Your task to perform on an android device: Open the web browser Image 0: 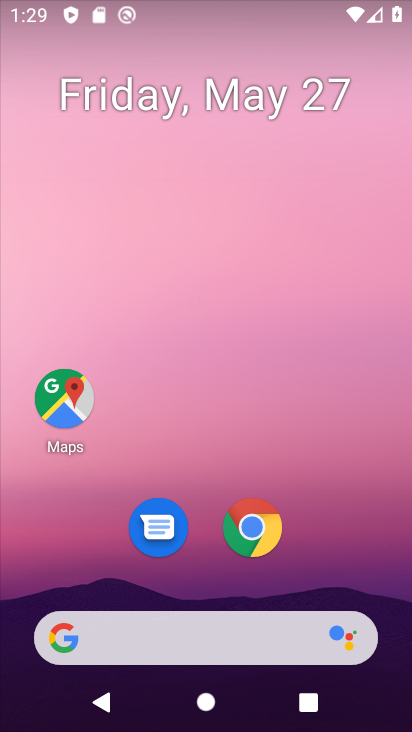
Step 0: click (252, 523)
Your task to perform on an android device: Open the web browser Image 1: 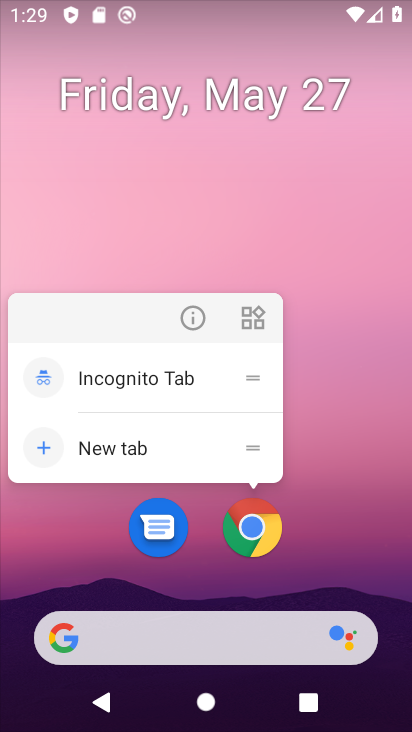
Step 1: click (253, 525)
Your task to perform on an android device: Open the web browser Image 2: 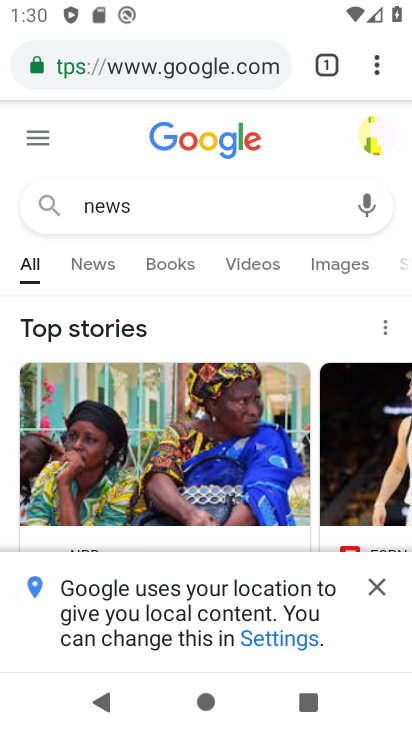
Step 2: click (207, 77)
Your task to perform on an android device: Open the web browser Image 3: 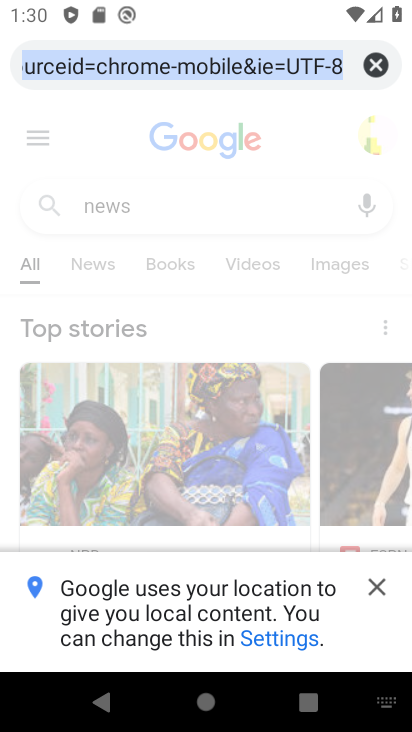
Step 3: task complete